Your task to perform on an android device: open app "Truecaller" (install if not already installed) and enter user name: "coauthor@gmail.com" and password: "quadrangle" Image 0: 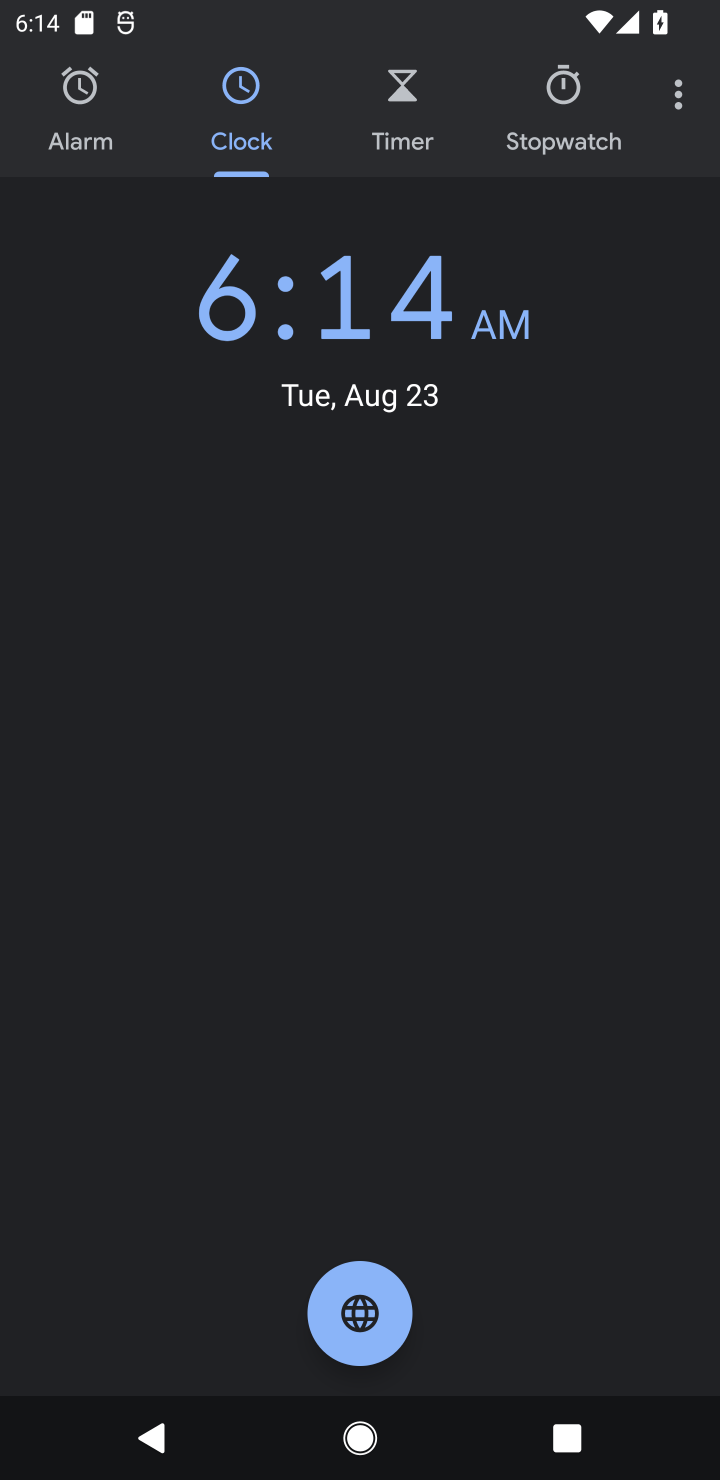
Step 0: press back button
Your task to perform on an android device: open app "Truecaller" (install if not already installed) and enter user name: "coauthor@gmail.com" and password: "quadrangle" Image 1: 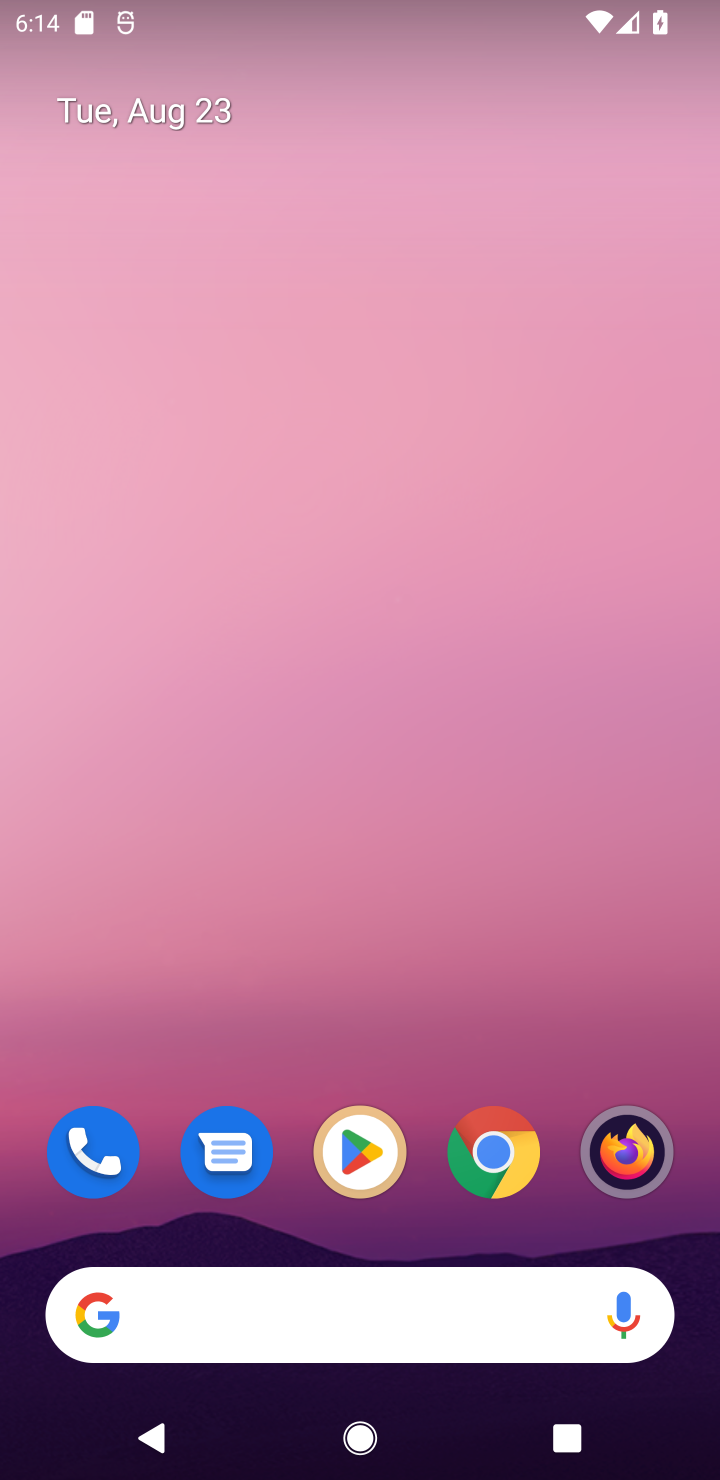
Step 1: click (374, 1134)
Your task to perform on an android device: open app "Truecaller" (install if not already installed) and enter user name: "coauthor@gmail.com" and password: "quadrangle" Image 2: 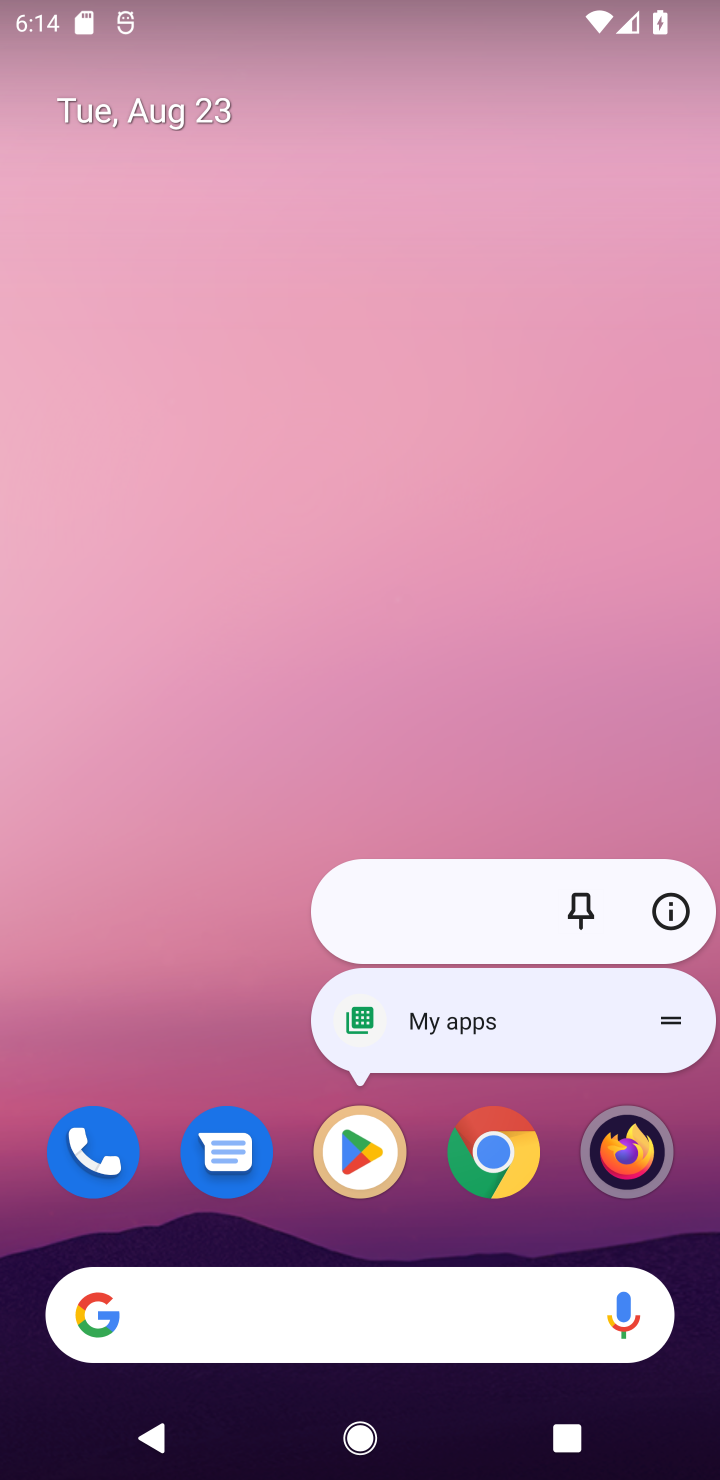
Step 2: click (370, 1126)
Your task to perform on an android device: open app "Truecaller" (install if not already installed) and enter user name: "coauthor@gmail.com" and password: "quadrangle" Image 3: 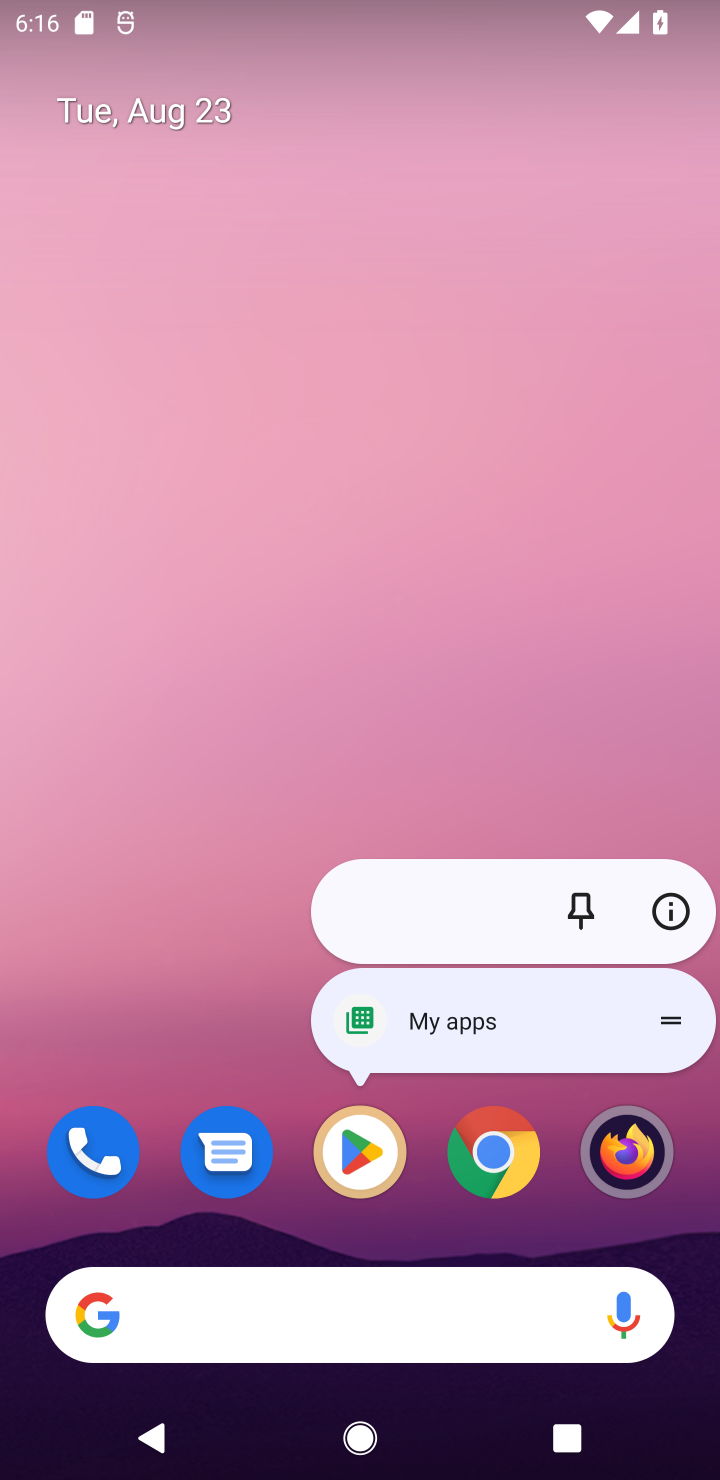
Step 3: click (350, 1139)
Your task to perform on an android device: open app "Truecaller" (install if not already installed) and enter user name: "coauthor@gmail.com" and password: "quadrangle" Image 4: 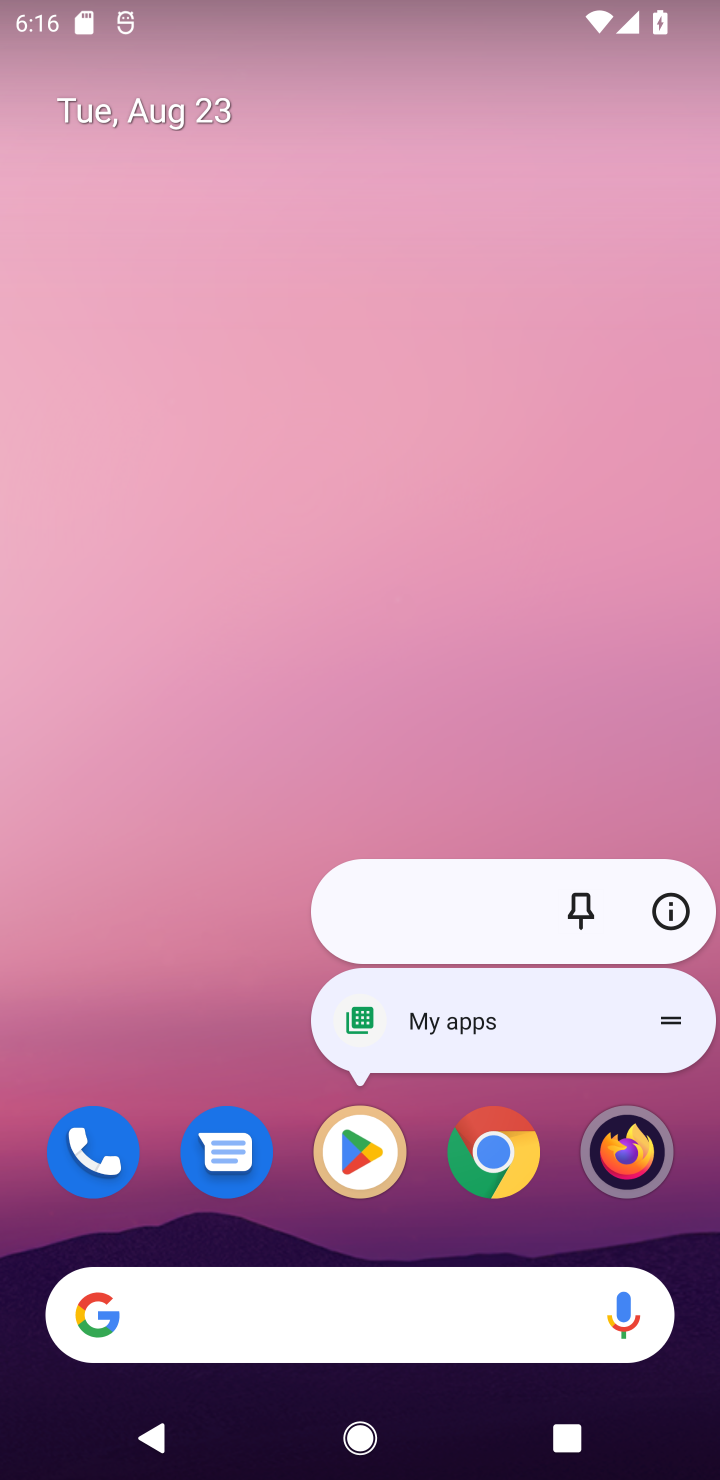
Step 4: click (352, 1165)
Your task to perform on an android device: open app "Truecaller" (install if not already installed) and enter user name: "coauthor@gmail.com" and password: "quadrangle" Image 5: 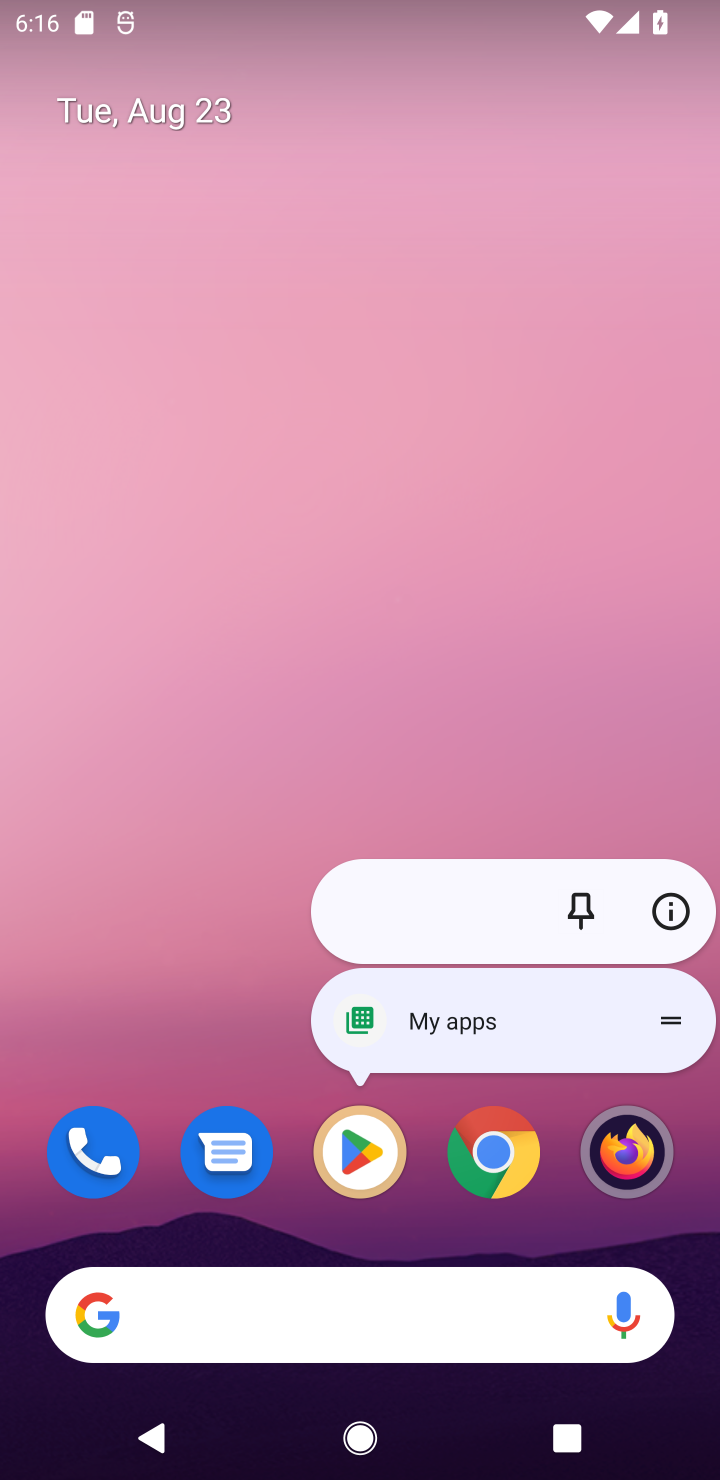
Step 5: click (362, 1165)
Your task to perform on an android device: open app "Truecaller" (install if not already installed) and enter user name: "coauthor@gmail.com" and password: "quadrangle" Image 6: 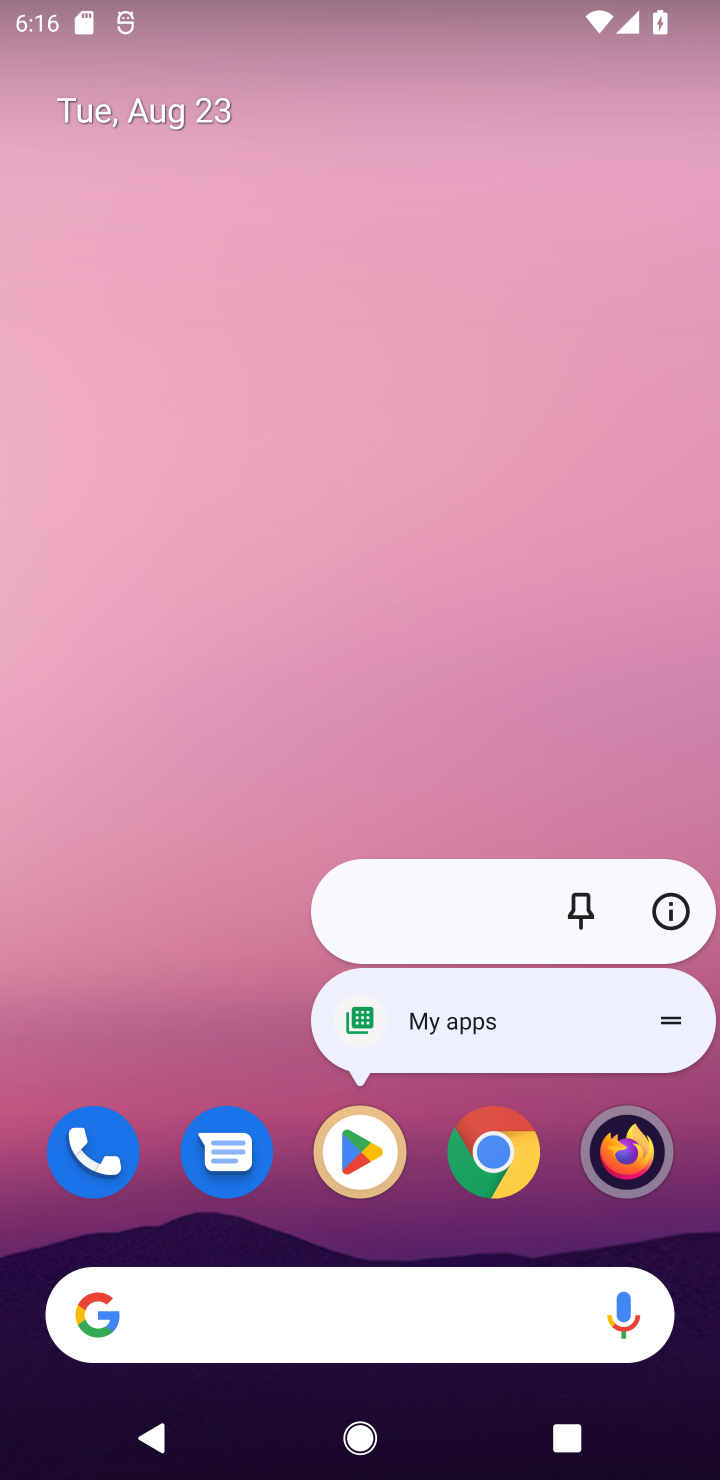
Step 6: click (366, 1171)
Your task to perform on an android device: open app "Truecaller" (install if not already installed) and enter user name: "coauthor@gmail.com" and password: "quadrangle" Image 7: 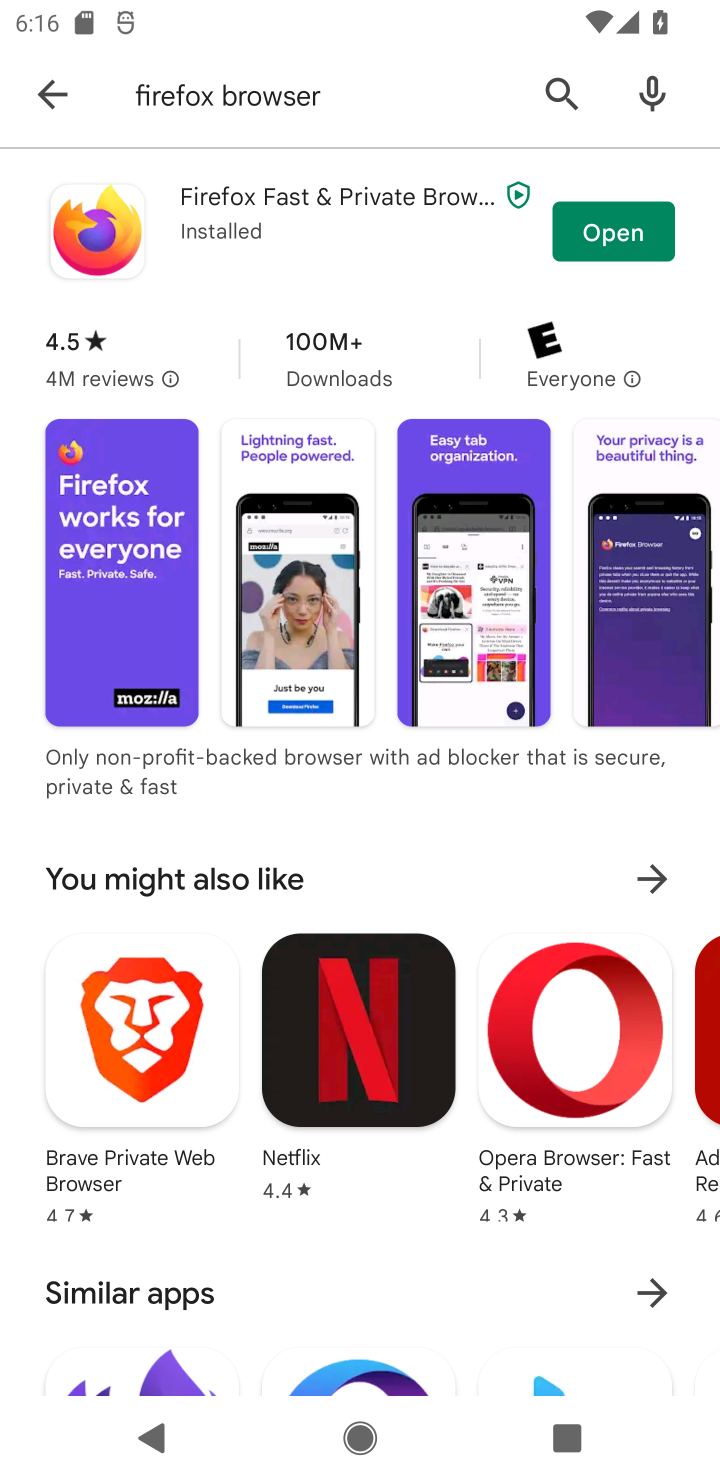
Step 7: click (572, 82)
Your task to perform on an android device: open app "Truecaller" (install if not already installed) and enter user name: "coauthor@gmail.com" and password: "quadrangle" Image 8: 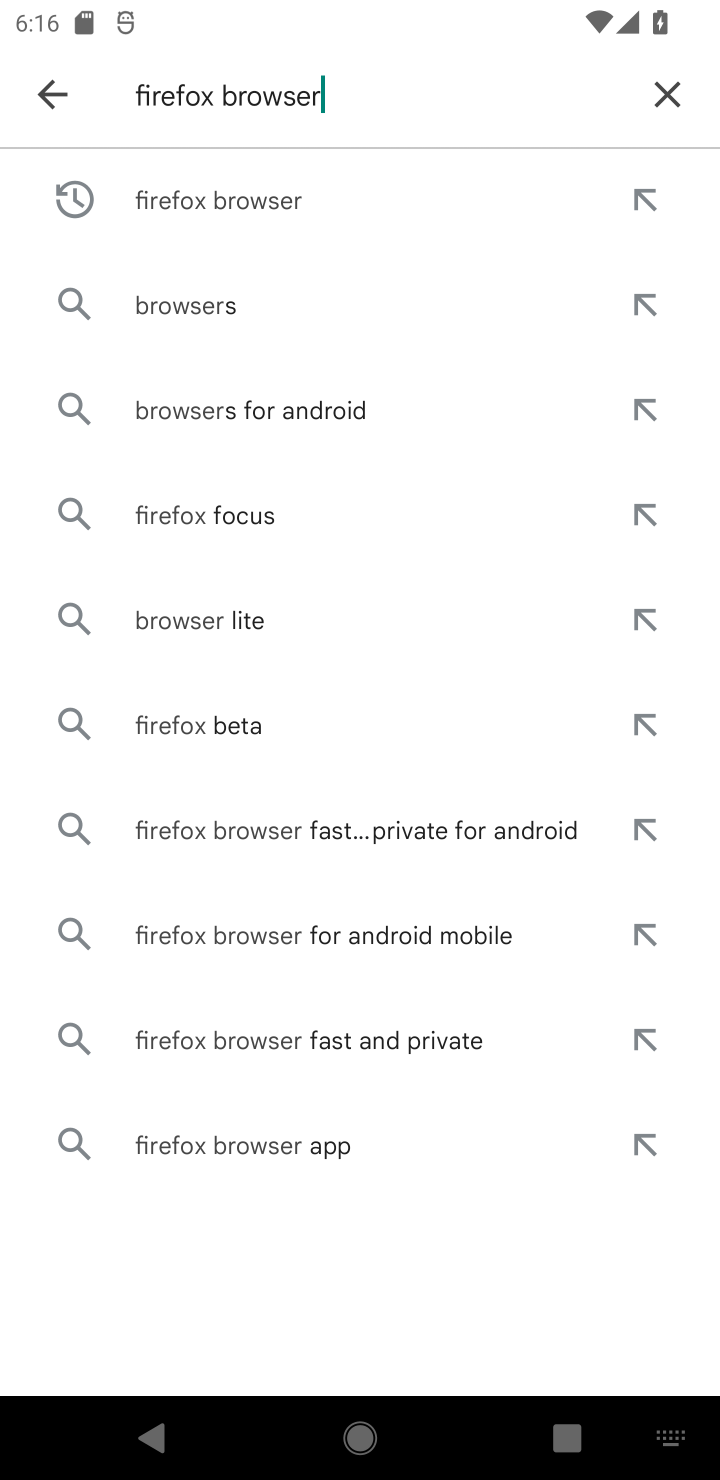
Step 8: click (673, 85)
Your task to perform on an android device: open app "Truecaller" (install if not already installed) and enter user name: "coauthor@gmail.com" and password: "quadrangle" Image 9: 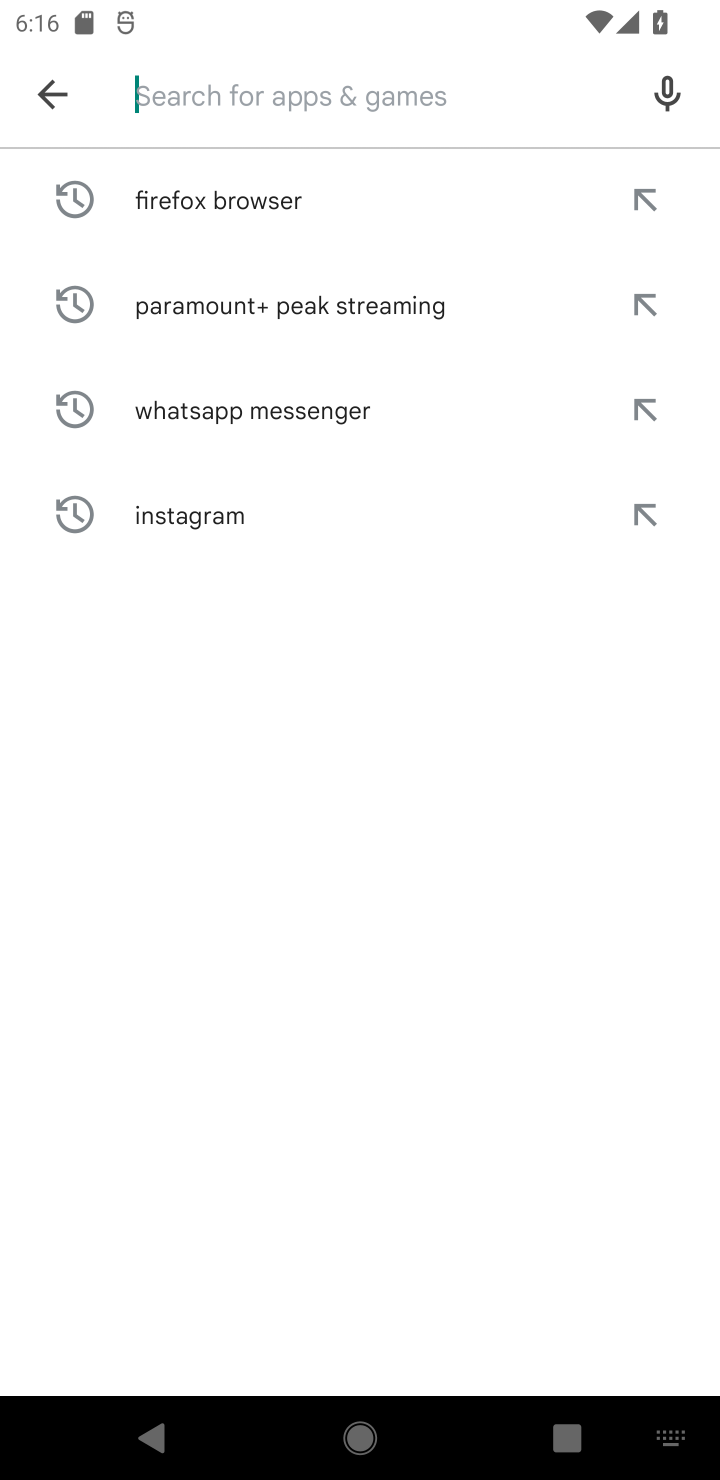
Step 9: click (291, 118)
Your task to perform on an android device: open app "Truecaller" (install if not already installed) and enter user name: "coauthor@gmail.com" and password: "quadrangle" Image 10: 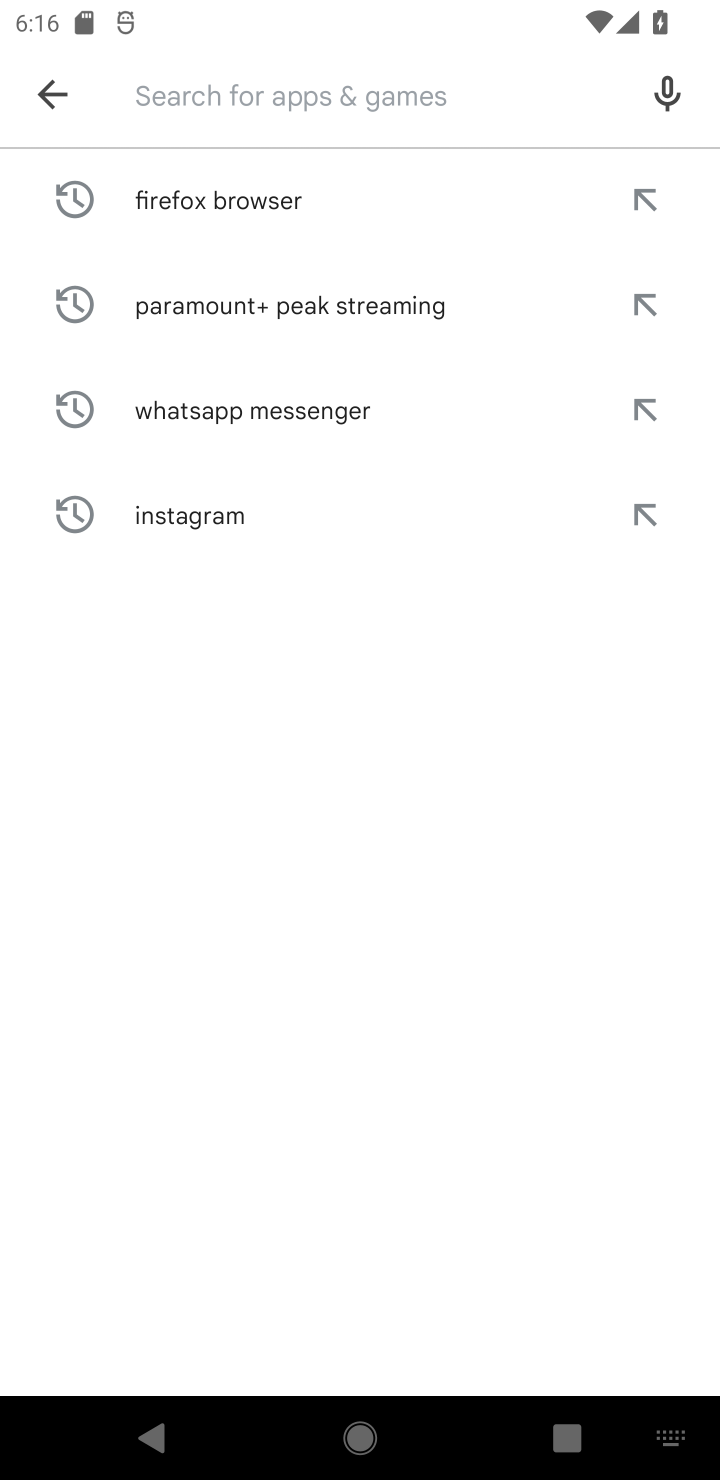
Step 10: click (125, 109)
Your task to perform on an android device: open app "Truecaller" (install if not already installed) and enter user name: "coauthor@gmail.com" and password: "quadrangle" Image 11: 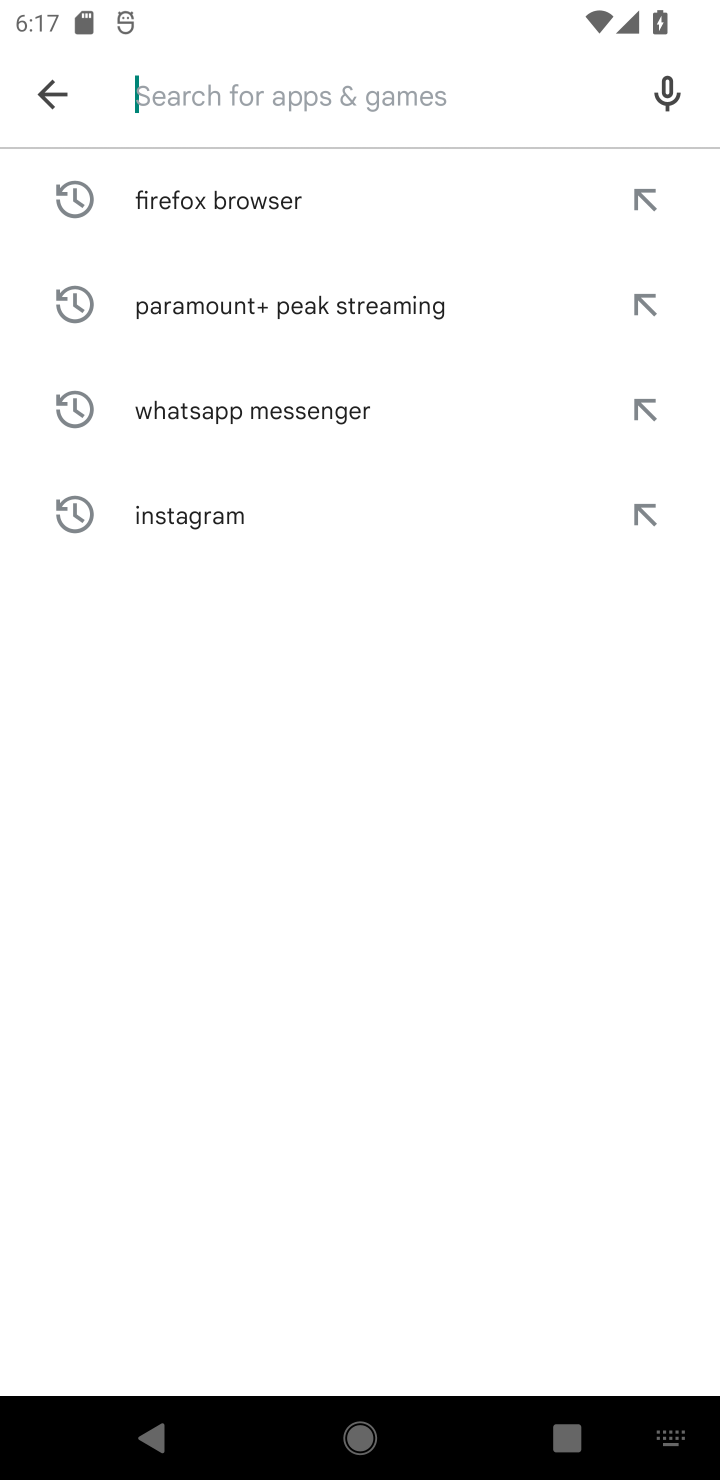
Step 11: type "Truecaller"
Your task to perform on an android device: open app "Truecaller" (install if not already installed) and enter user name: "coauthor@gmail.com" and password: "quadrangle" Image 12: 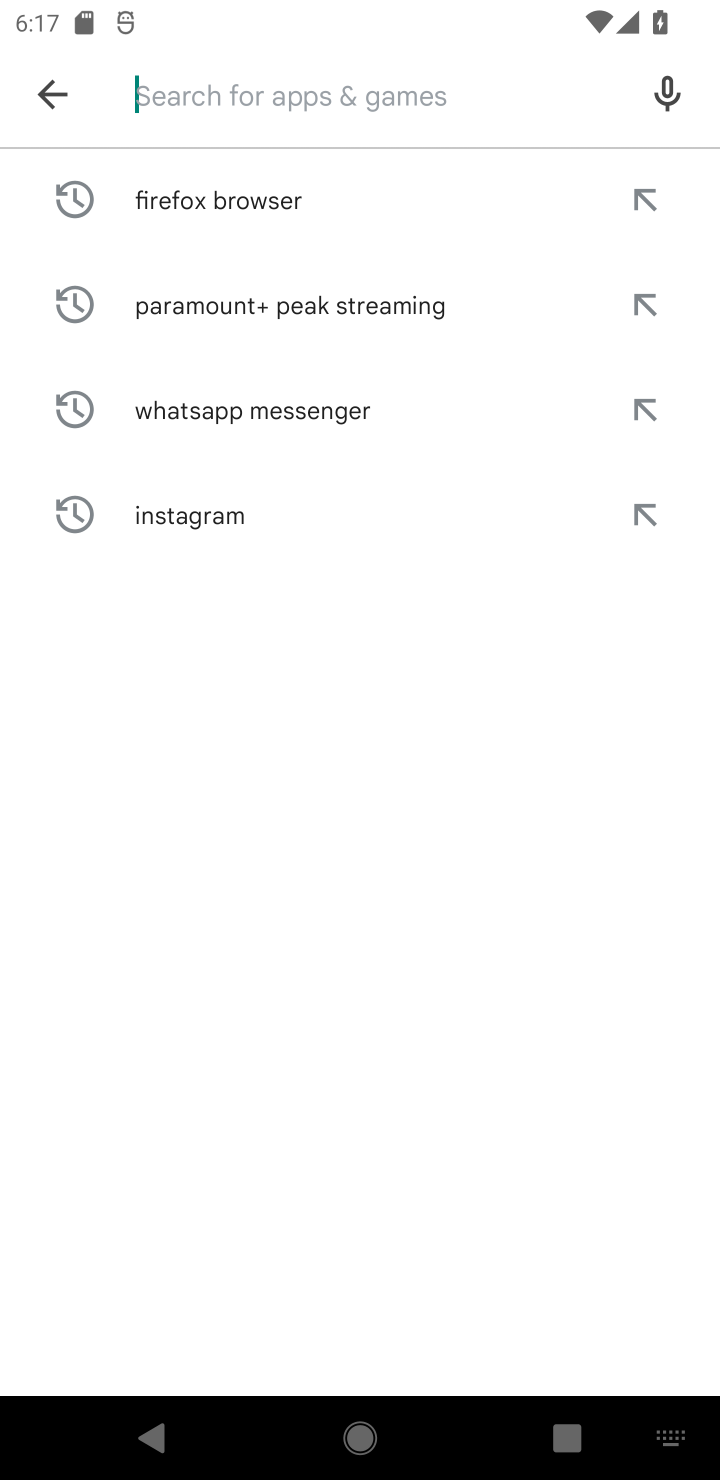
Step 12: click (297, 1016)
Your task to perform on an android device: open app "Truecaller" (install if not already installed) and enter user name: "coauthor@gmail.com" and password: "quadrangle" Image 13: 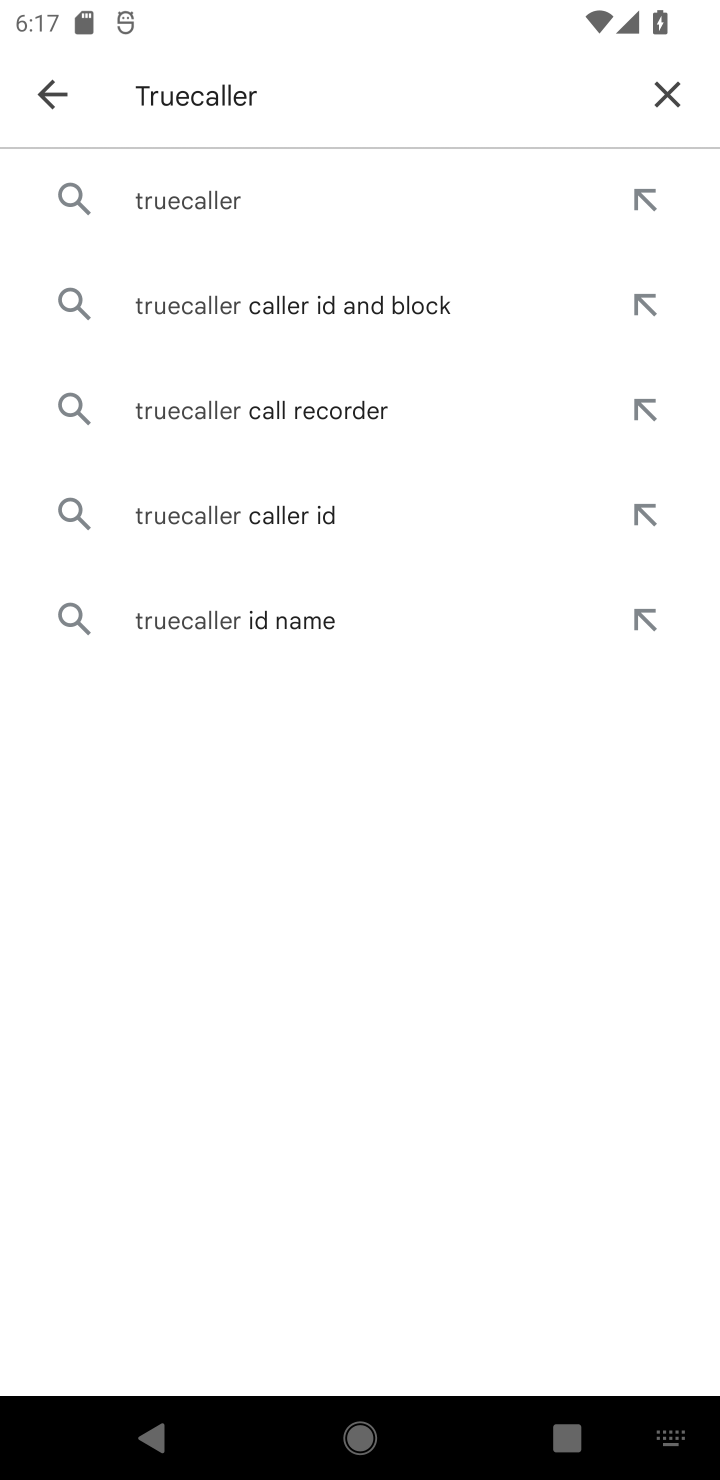
Step 13: click (281, 211)
Your task to perform on an android device: open app "Truecaller" (install if not already installed) and enter user name: "coauthor@gmail.com" and password: "quadrangle" Image 14: 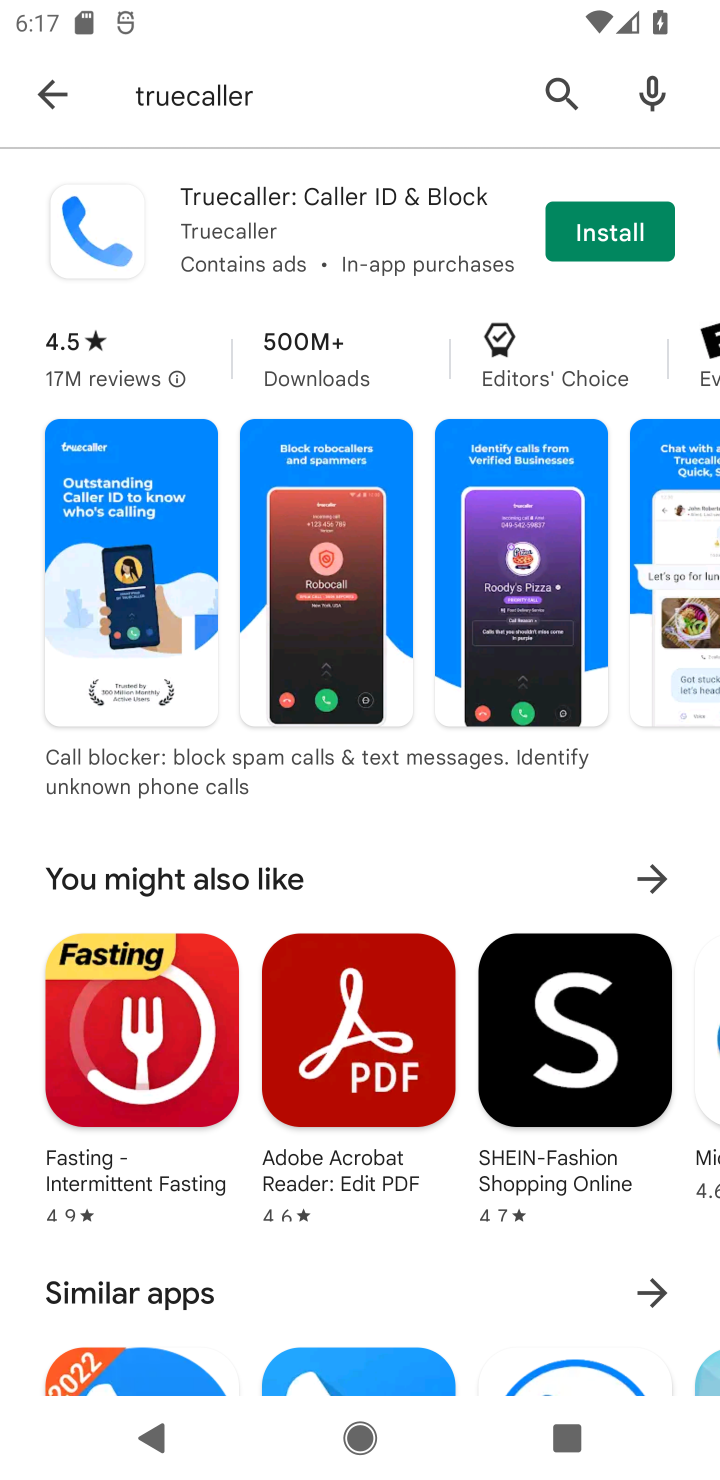
Step 14: click (592, 244)
Your task to perform on an android device: open app "Truecaller" (install if not already installed) and enter user name: "coauthor@gmail.com" and password: "quadrangle" Image 15: 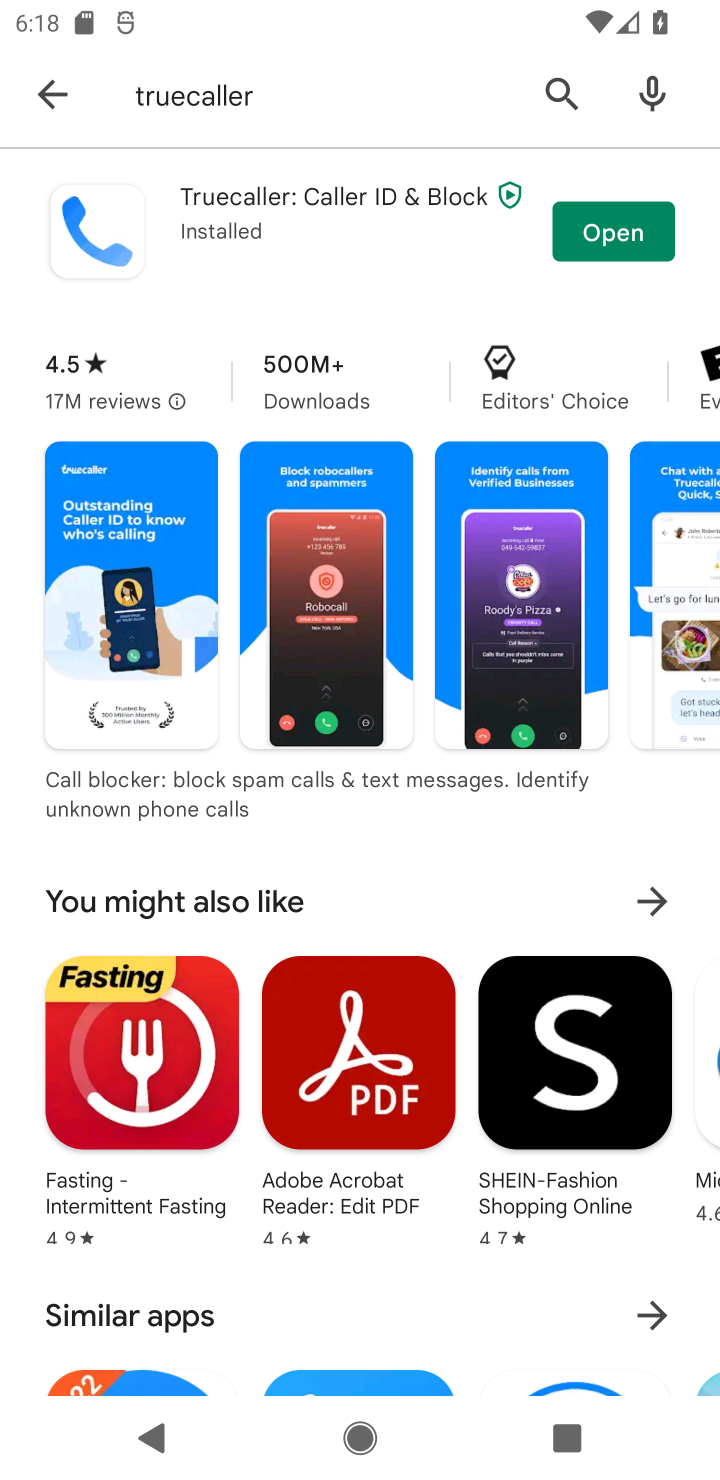
Step 15: click (609, 248)
Your task to perform on an android device: open app "Truecaller" (install if not already installed) and enter user name: "coauthor@gmail.com" and password: "quadrangle" Image 16: 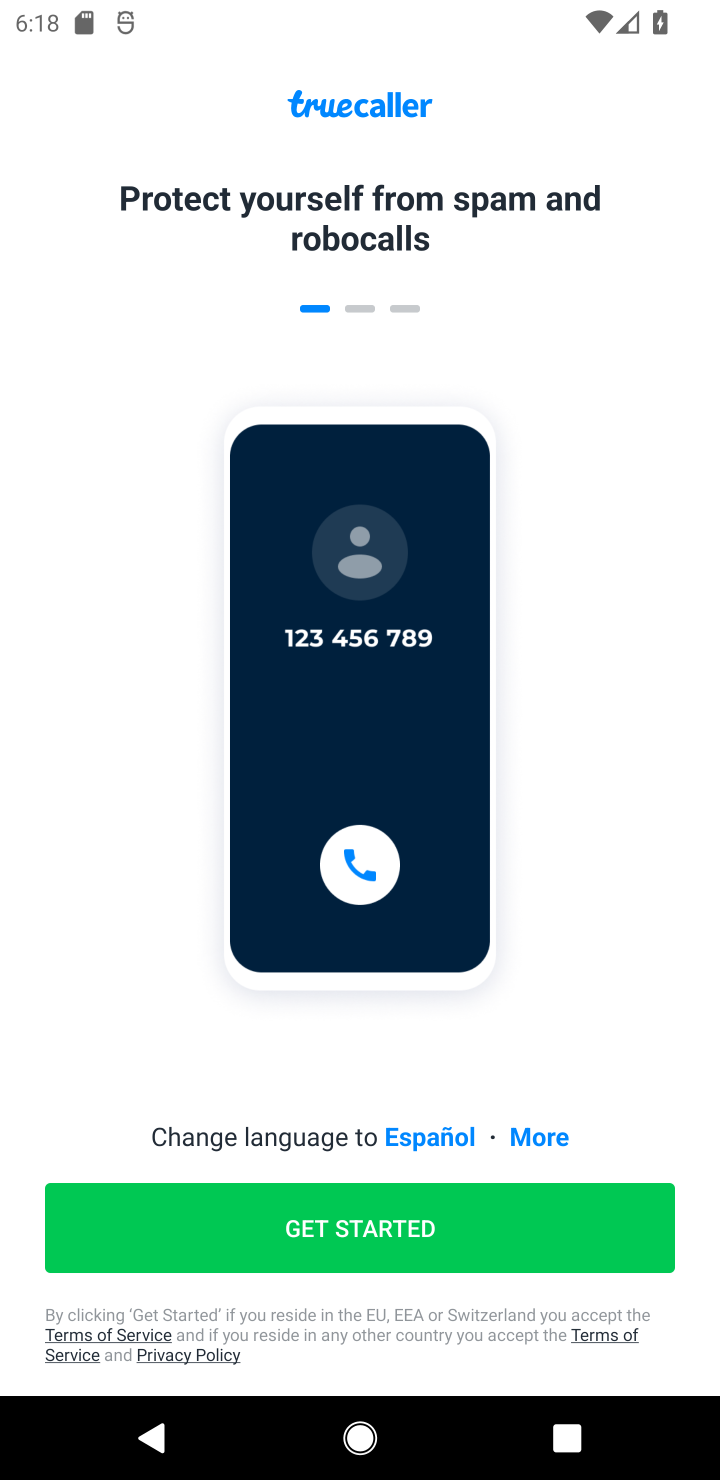
Step 16: click (377, 1224)
Your task to perform on an android device: open app "Truecaller" (install if not already installed) and enter user name: "coauthor@gmail.com" and password: "quadrangle" Image 17: 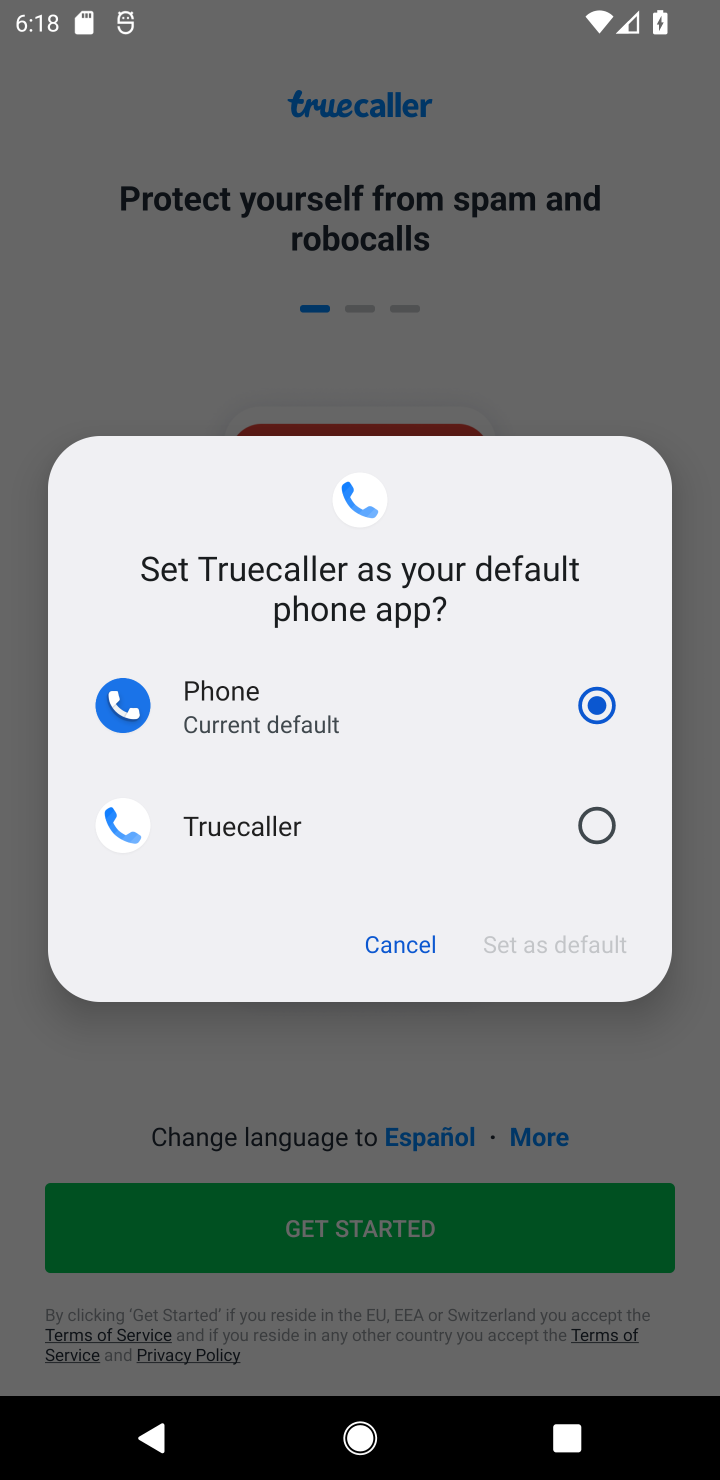
Step 17: click (416, 952)
Your task to perform on an android device: open app "Truecaller" (install if not already installed) and enter user name: "coauthor@gmail.com" and password: "quadrangle" Image 18: 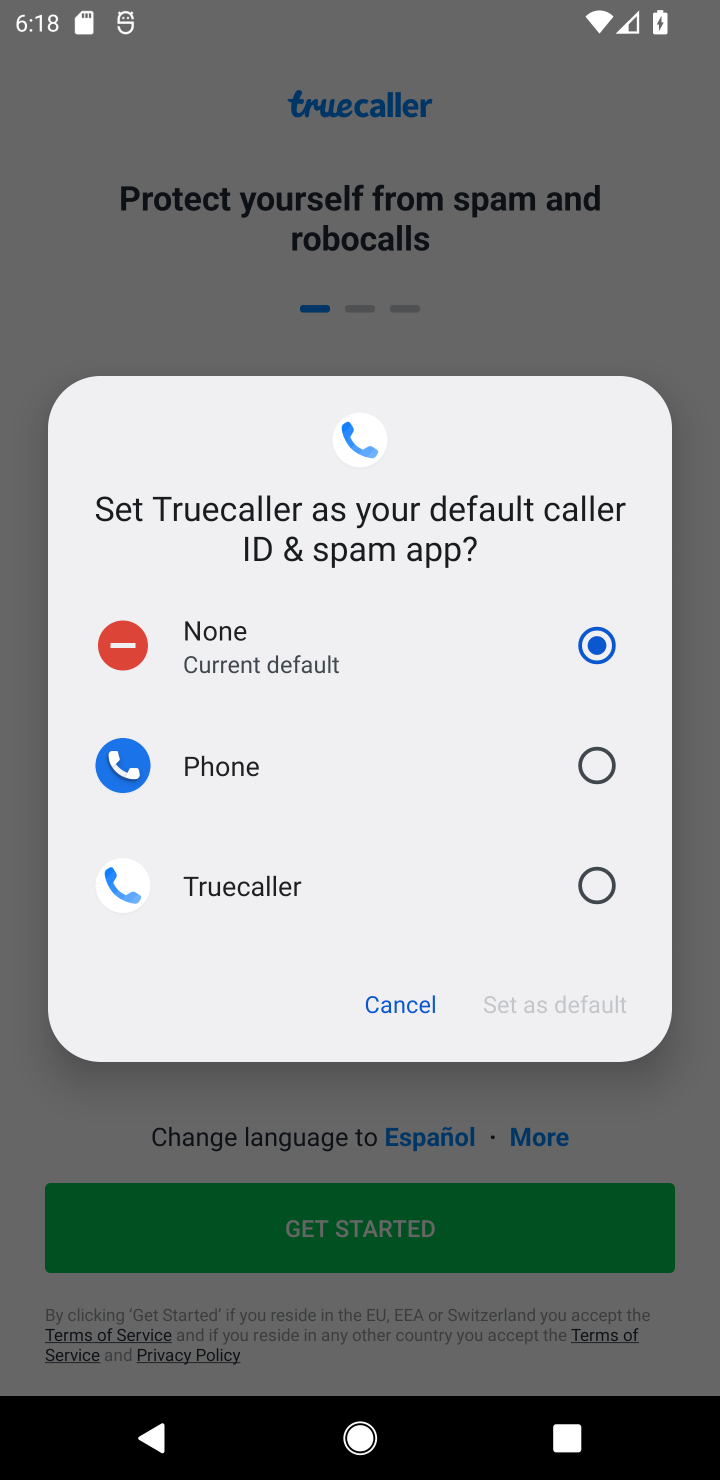
Step 18: task complete